Your task to perform on an android device: Open Yahoo.com Image 0: 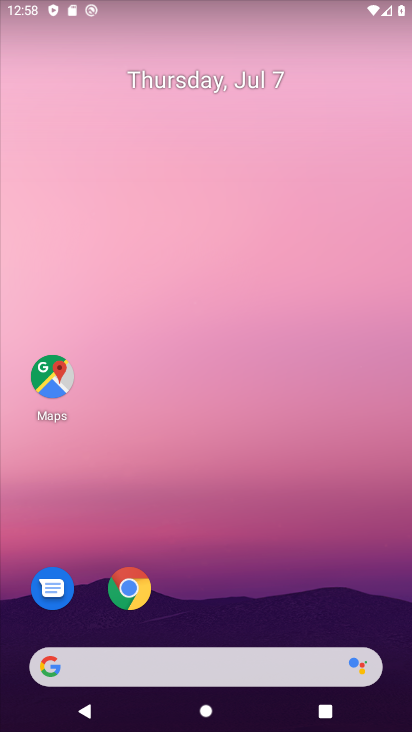
Step 0: drag from (276, 610) to (245, 233)
Your task to perform on an android device: Open Yahoo.com Image 1: 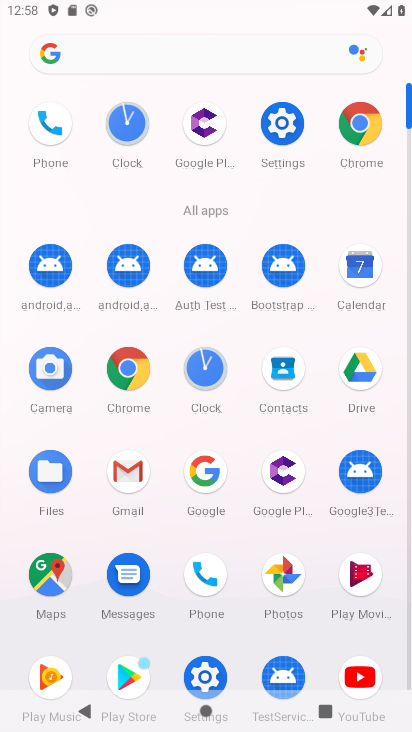
Step 1: click (356, 112)
Your task to perform on an android device: Open Yahoo.com Image 2: 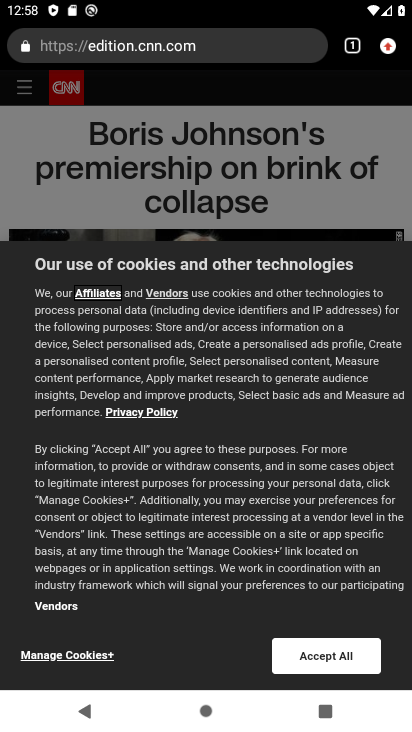
Step 2: click (362, 61)
Your task to perform on an android device: Open Yahoo.com Image 3: 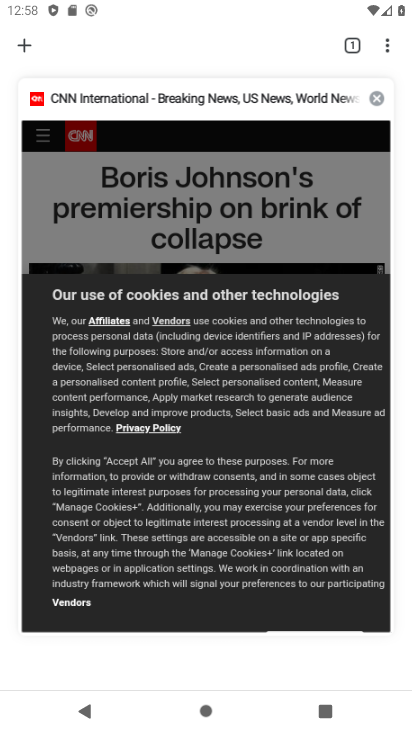
Step 3: click (384, 42)
Your task to perform on an android device: Open Yahoo.com Image 4: 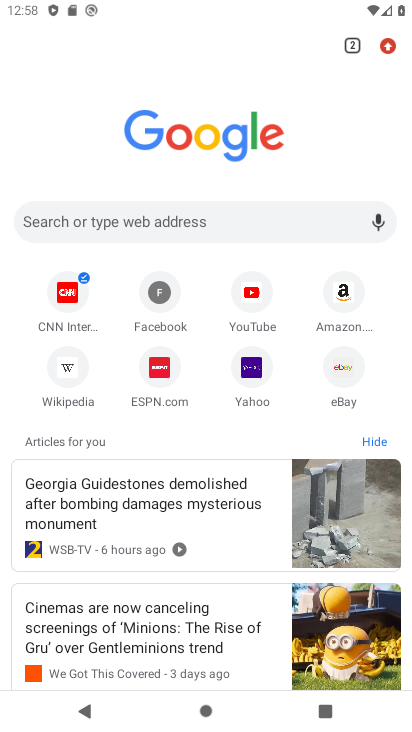
Step 4: click (233, 363)
Your task to perform on an android device: Open Yahoo.com Image 5: 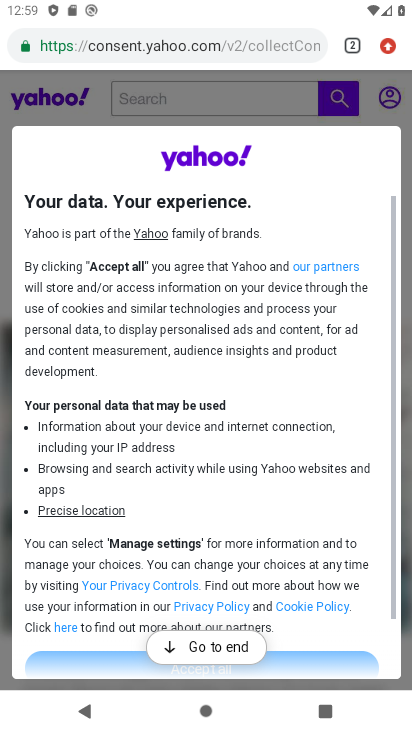
Step 5: task complete